Your task to perform on an android device: toggle wifi Image 0: 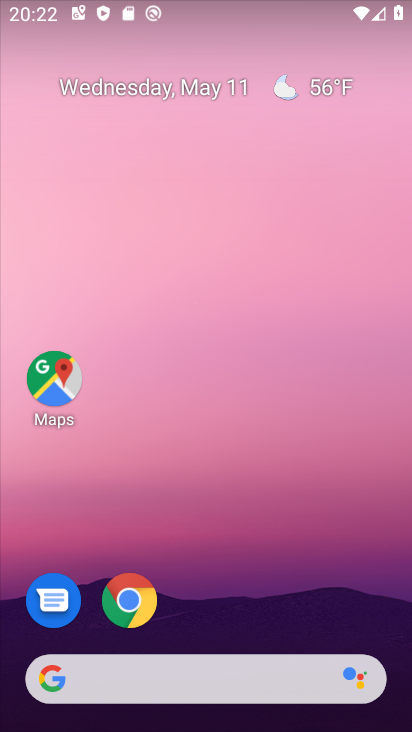
Step 0: drag from (246, 592) to (245, 39)
Your task to perform on an android device: toggle wifi Image 1: 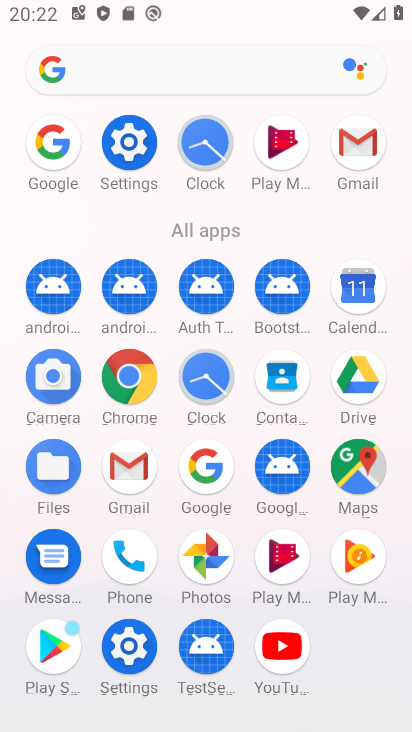
Step 1: click (127, 143)
Your task to perform on an android device: toggle wifi Image 2: 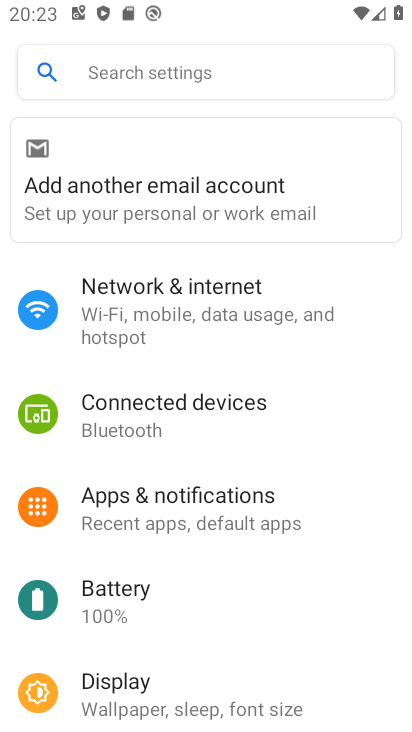
Step 2: click (166, 287)
Your task to perform on an android device: toggle wifi Image 3: 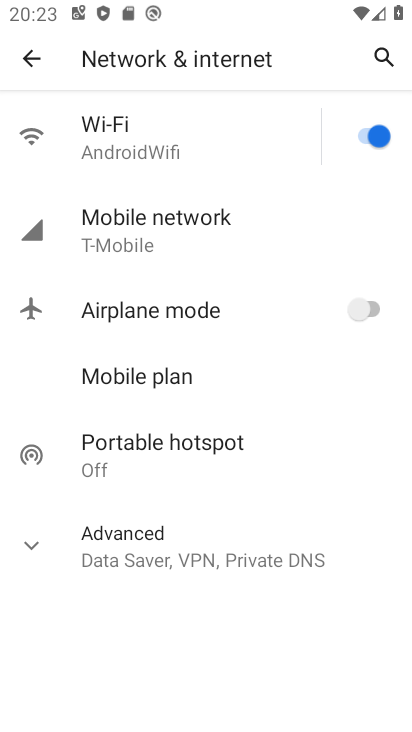
Step 3: click (380, 138)
Your task to perform on an android device: toggle wifi Image 4: 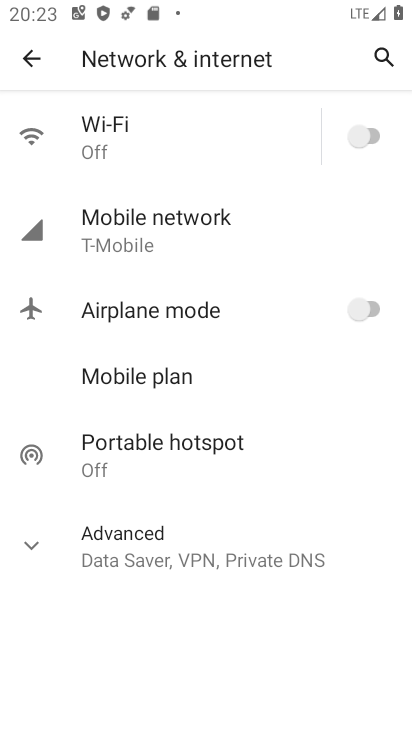
Step 4: task complete